Your task to perform on an android device: empty trash in google photos Image 0: 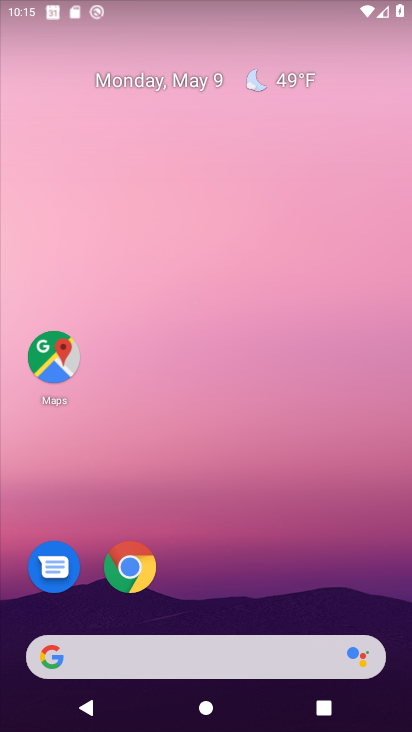
Step 0: drag from (220, 626) to (265, 253)
Your task to perform on an android device: empty trash in google photos Image 1: 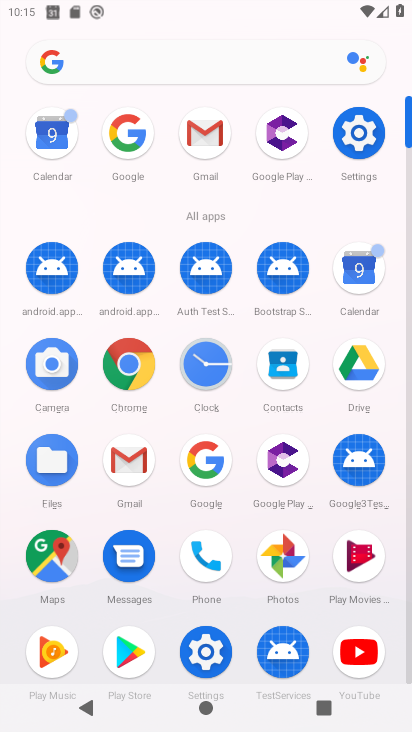
Step 1: click (279, 555)
Your task to perform on an android device: empty trash in google photos Image 2: 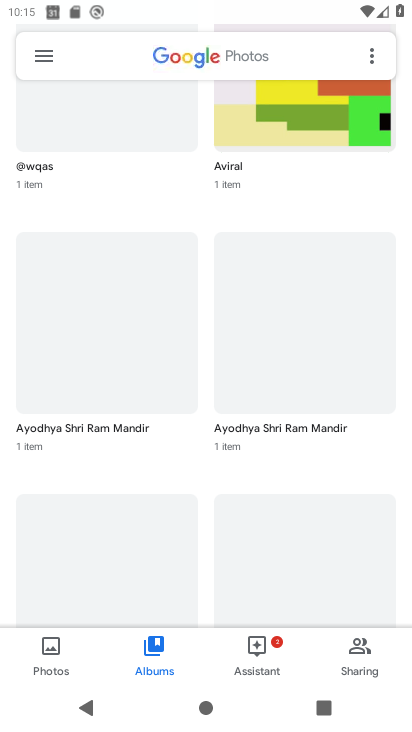
Step 2: drag from (142, 133) to (157, 500)
Your task to perform on an android device: empty trash in google photos Image 3: 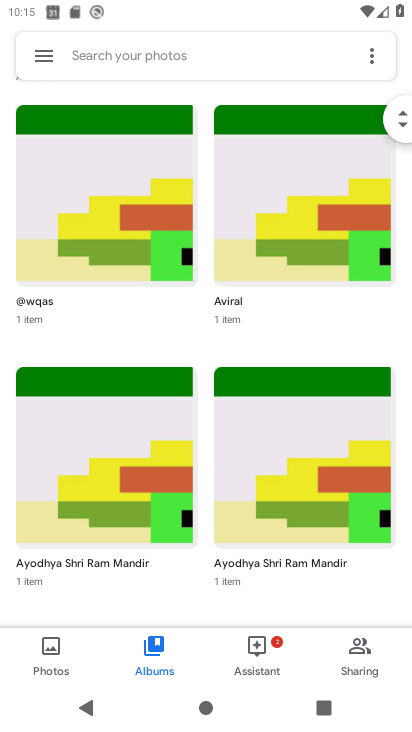
Step 3: click (36, 51)
Your task to perform on an android device: empty trash in google photos Image 4: 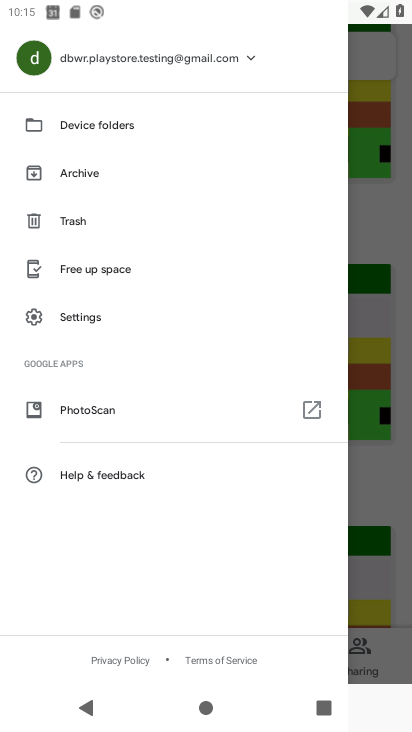
Step 4: click (85, 229)
Your task to perform on an android device: empty trash in google photos Image 5: 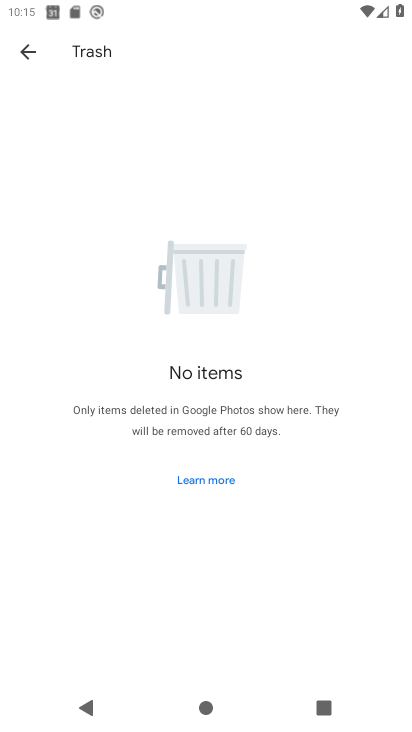
Step 5: task complete